Your task to perform on an android device: Open Wikipedia Image 0: 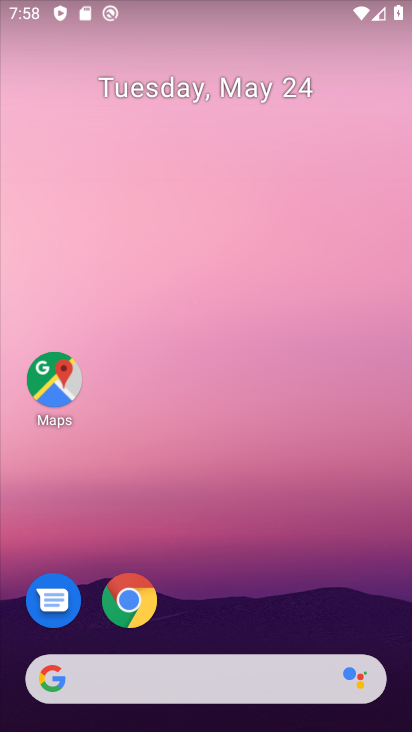
Step 0: click (129, 601)
Your task to perform on an android device: Open Wikipedia Image 1: 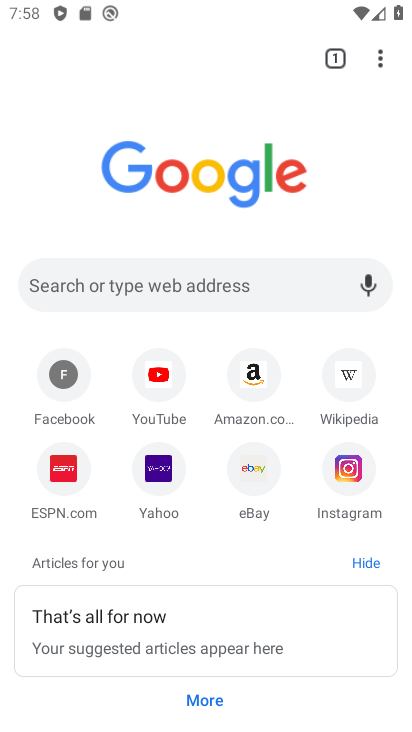
Step 1: click (343, 383)
Your task to perform on an android device: Open Wikipedia Image 2: 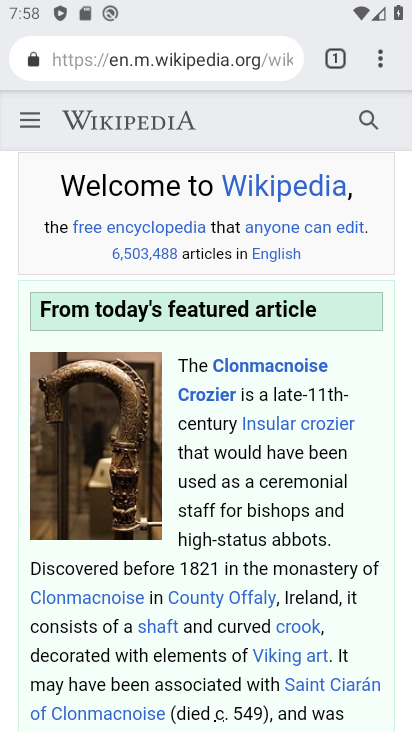
Step 2: task complete